Your task to perform on an android device: toggle notifications settings in the gmail app Image 0: 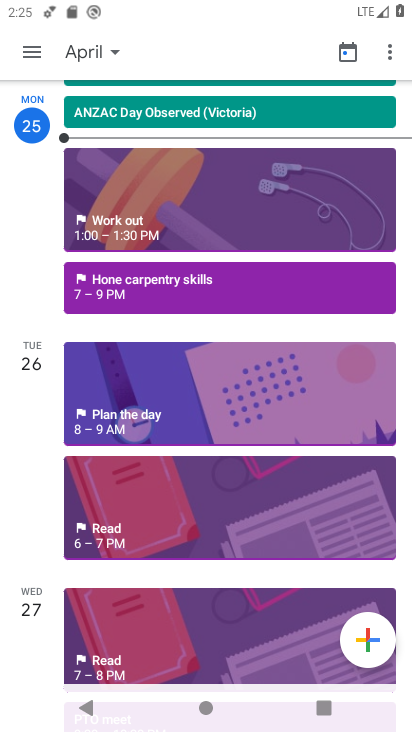
Step 0: drag from (283, 538) to (338, 303)
Your task to perform on an android device: toggle notifications settings in the gmail app Image 1: 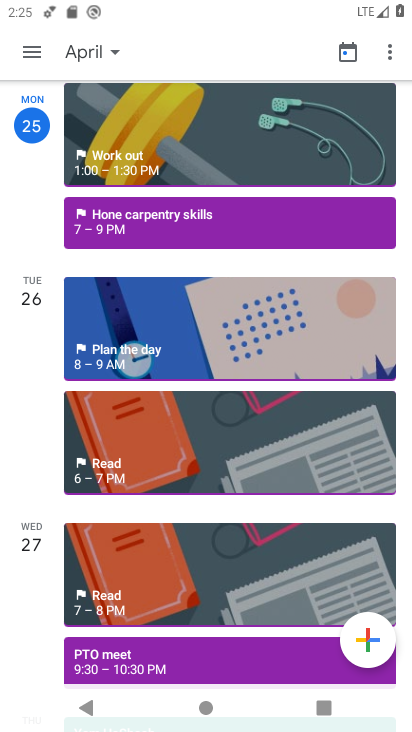
Step 1: press home button
Your task to perform on an android device: toggle notifications settings in the gmail app Image 2: 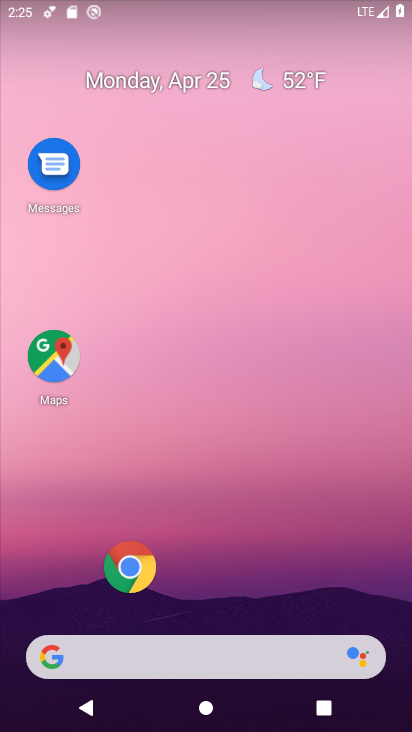
Step 2: drag from (222, 562) to (222, 143)
Your task to perform on an android device: toggle notifications settings in the gmail app Image 3: 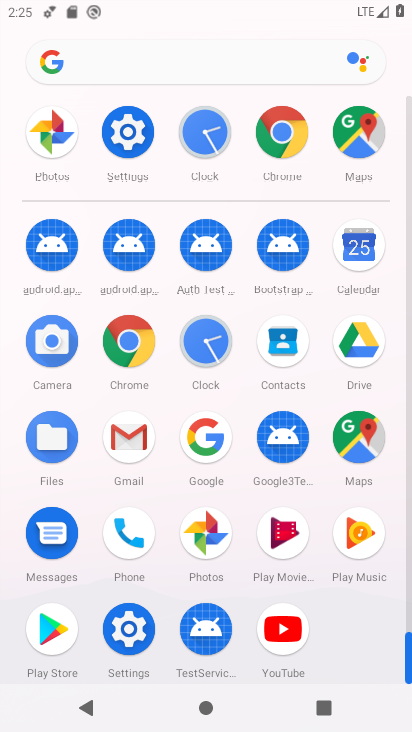
Step 3: click (136, 456)
Your task to perform on an android device: toggle notifications settings in the gmail app Image 4: 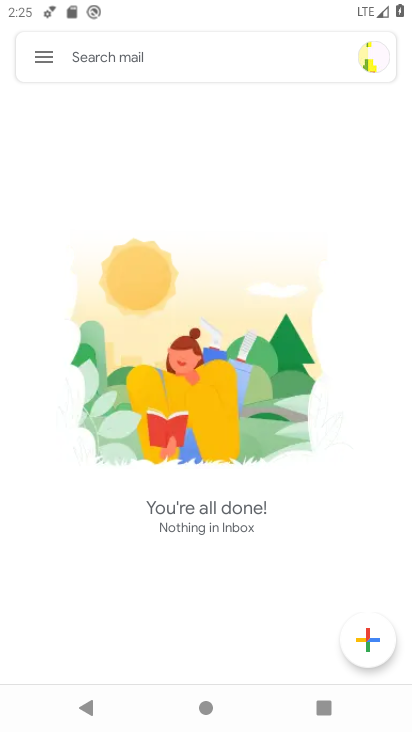
Step 4: click (46, 53)
Your task to perform on an android device: toggle notifications settings in the gmail app Image 5: 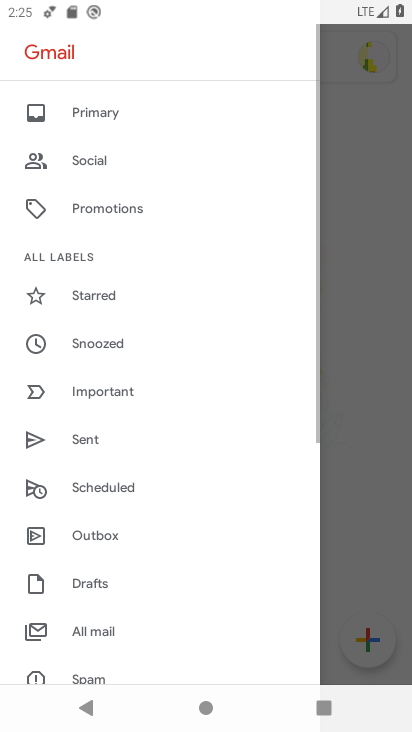
Step 5: drag from (115, 533) to (196, 100)
Your task to perform on an android device: toggle notifications settings in the gmail app Image 6: 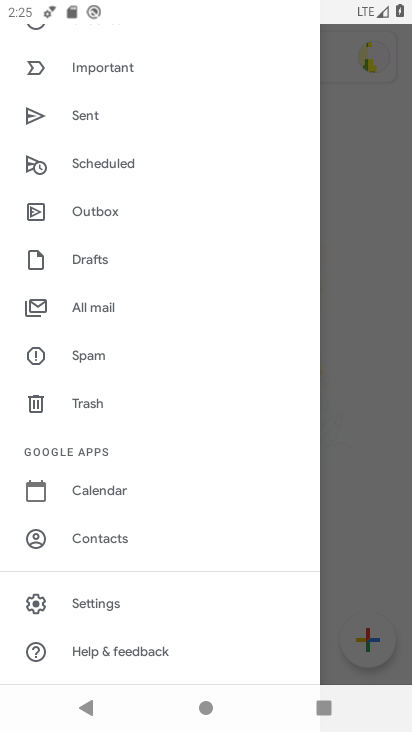
Step 6: click (100, 589)
Your task to perform on an android device: toggle notifications settings in the gmail app Image 7: 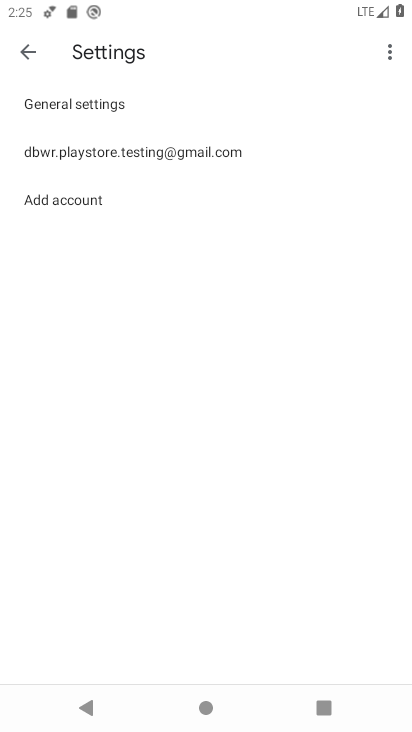
Step 7: click (201, 104)
Your task to perform on an android device: toggle notifications settings in the gmail app Image 8: 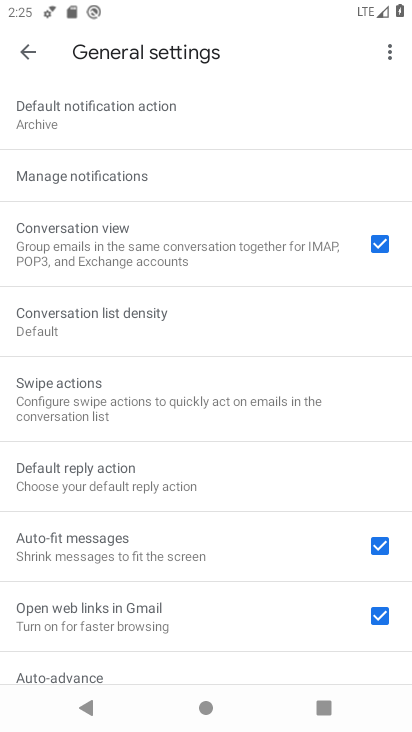
Step 8: click (180, 174)
Your task to perform on an android device: toggle notifications settings in the gmail app Image 9: 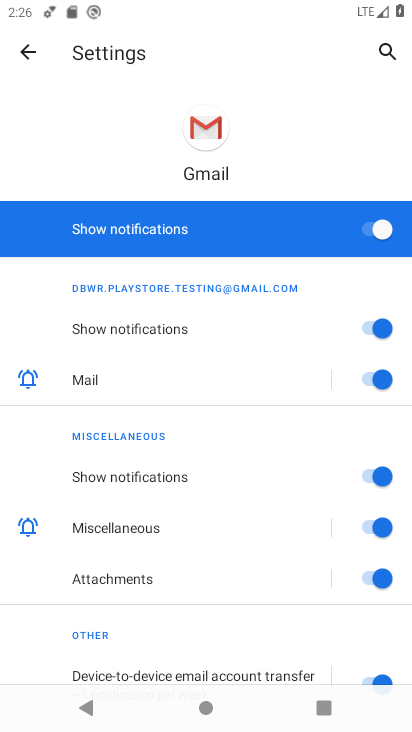
Step 9: click (373, 227)
Your task to perform on an android device: toggle notifications settings in the gmail app Image 10: 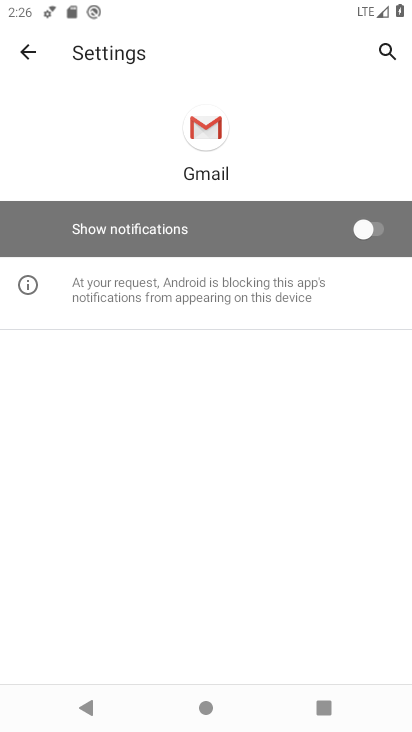
Step 10: task complete